Your task to perform on an android device: What's on my calendar today? Image 0: 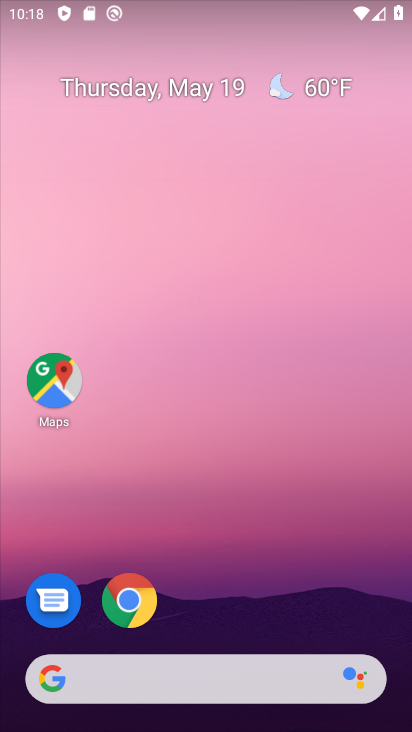
Step 0: drag from (359, 566) to (352, 172)
Your task to perform on an android device: What's on my calendar today? Image 1: 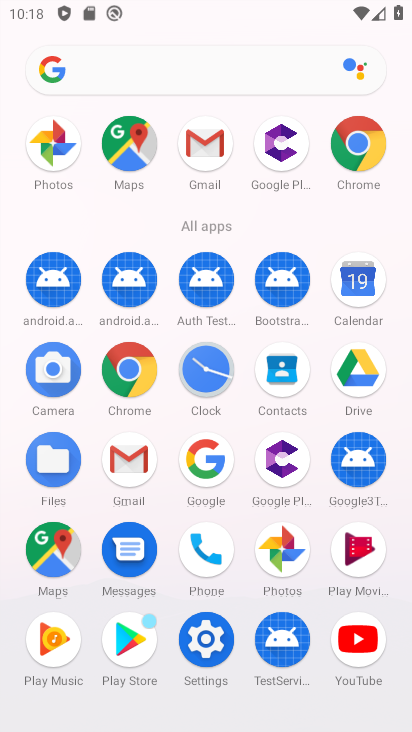
Step 1: click (349, 294)
Your task to perform on an android device: What's on my calendar today? Image 2: 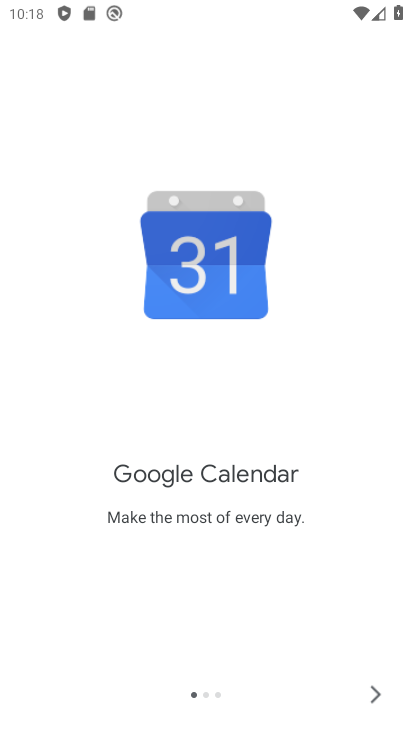
Step 2: click (368, 697)
Your task to perform on an android device: What's on my calendar today? Image 3: 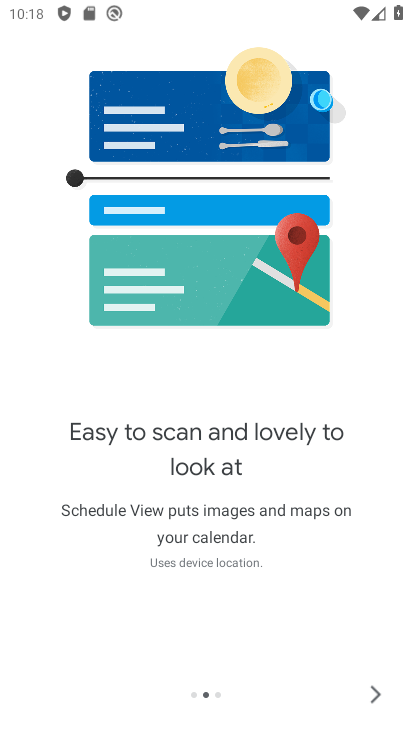
Step 3: click (364, 697)
Your task to perform on an android device: What's on my calendar today? Image 4: 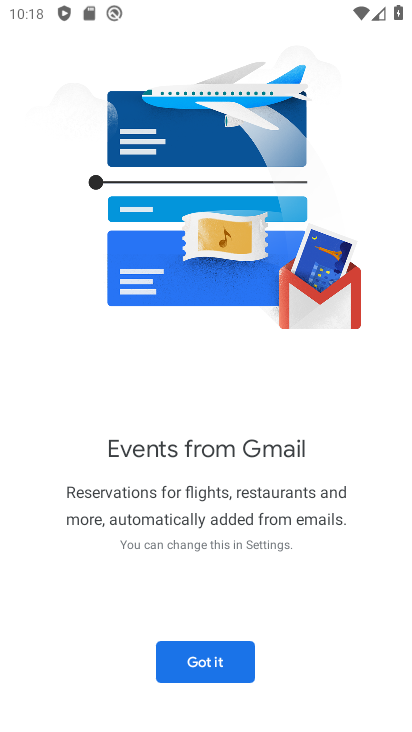
Step 4: click (217, 670)
Your task to perform on an android device: What's on my calendar today? Image 5: 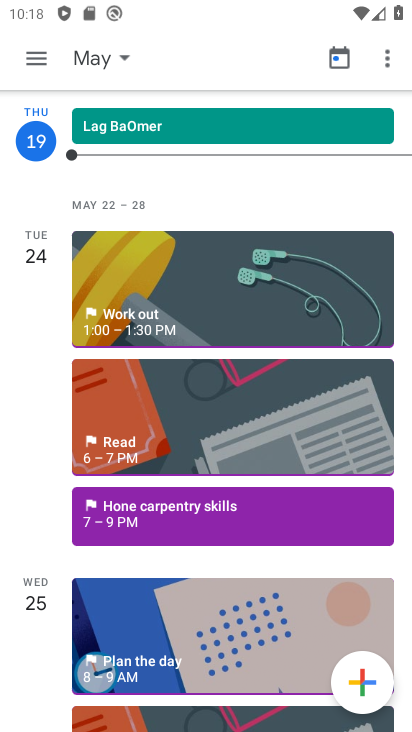
Step 5: click (120, 58)
Your task to perform on an android device: What's on my calendar today? Image 6: 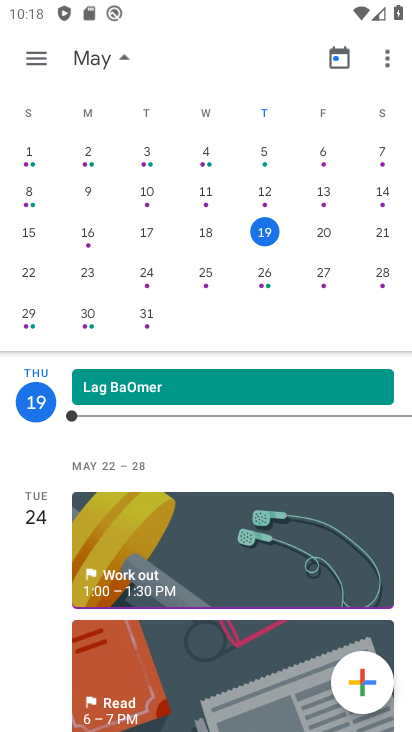
Step 6: click (330, 230)
Your task to perform on an android device: What's on my calendar today? Image 7: 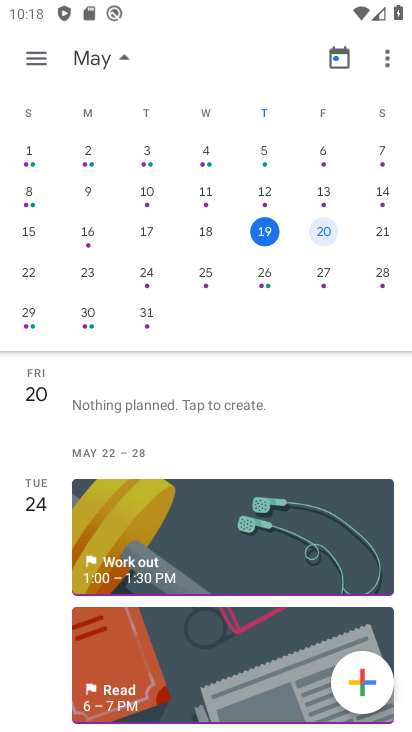
Step 7: task complete